Your task to perform on an android device: turn on bluetooth scan Image 0: 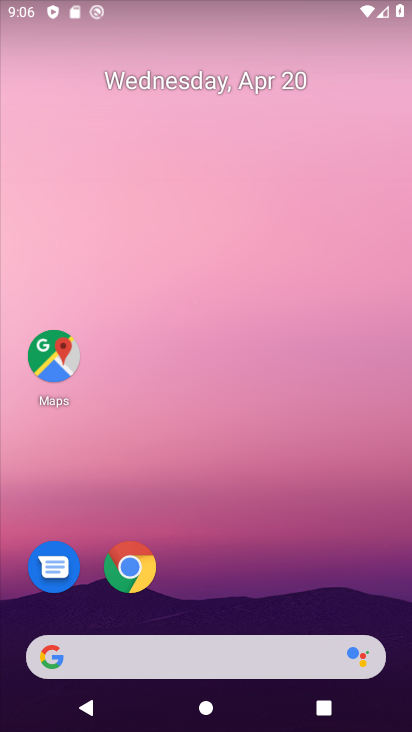
Step 0: drag from (252, 404) to (349, 33)
Your task to perform on an android device: turn on bluetooth scan Image 1: 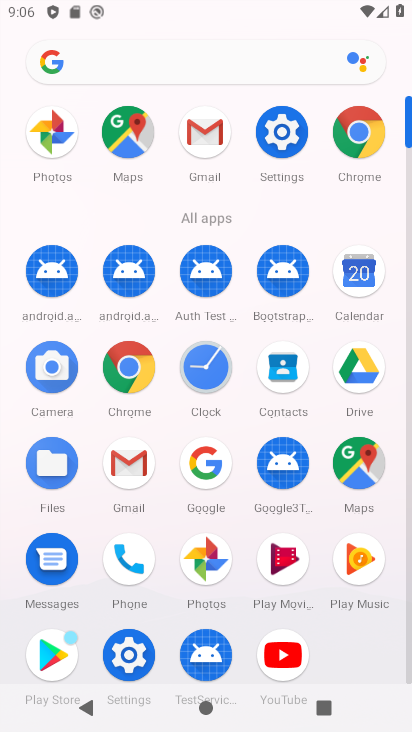
Step 1: click (300, 125)
Your task to perform on an android device: turn on bluetooth scan Image 2: 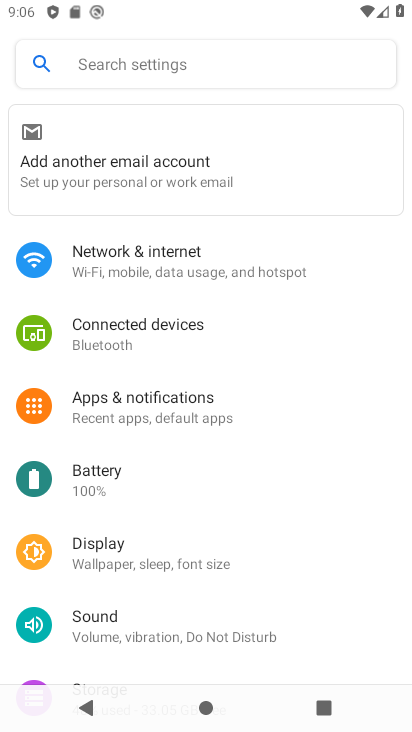
Step 2: click (118, 334)
Your task to perform on an android device: turn on bluetooth scan Image 3: 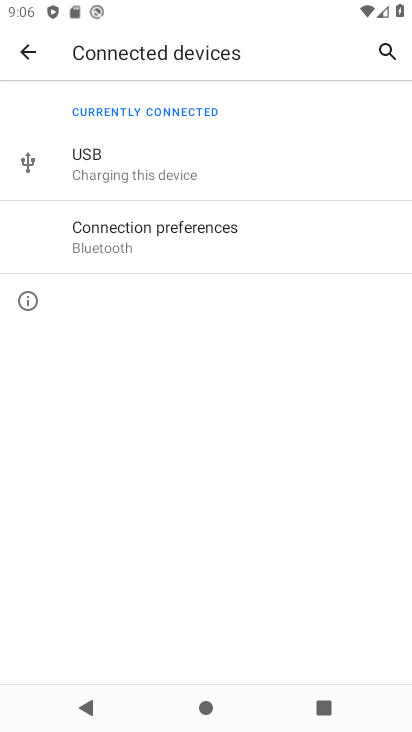
Step 3: click (130, 240)
Your task to perform on an android device: turn on bluetooth scan Image 4: 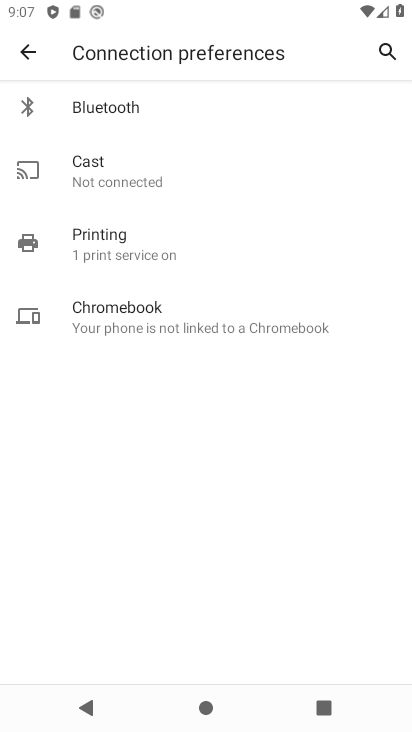
Step 4: click (116, 103)
Your task to perform on an android device: turn on bluetooth scan Image 5: 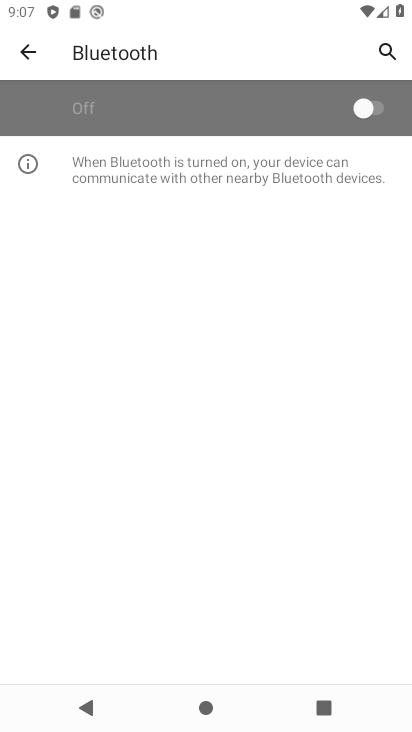
Step 5: click (369, 106)
Your task to perform on an android device: turn on bluetooth scan Image 6: 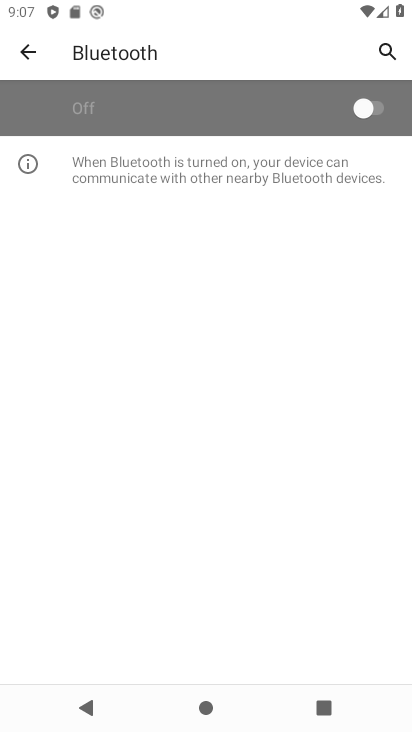
Step 6: task complete